Your task to perform on an android device: toggle javascript in the chrome app Image 0: 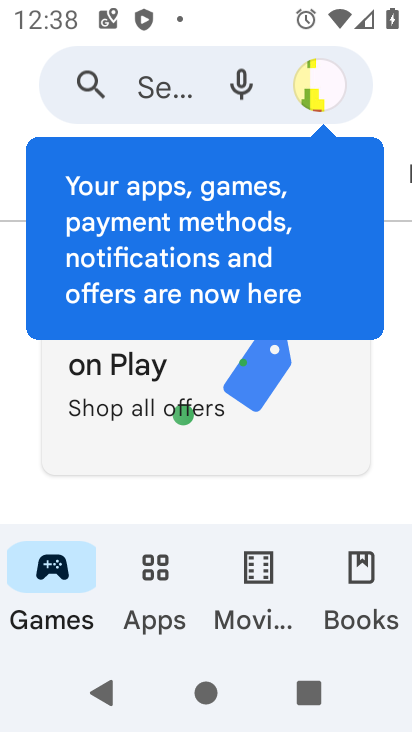
Step 0: press home button
Your task to perform on an android device: toggle javascript in the chrome app Image 1: 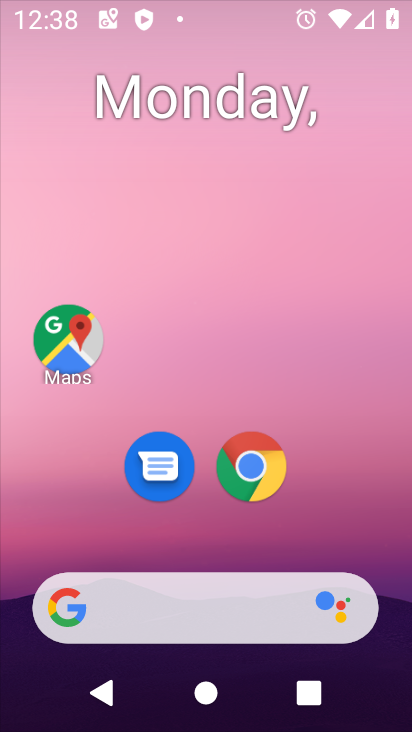
Step 1: drag from (392, 612) to (321, 127)
Your task to perform on an android device: toggle javascript in the chrome app Image 2: 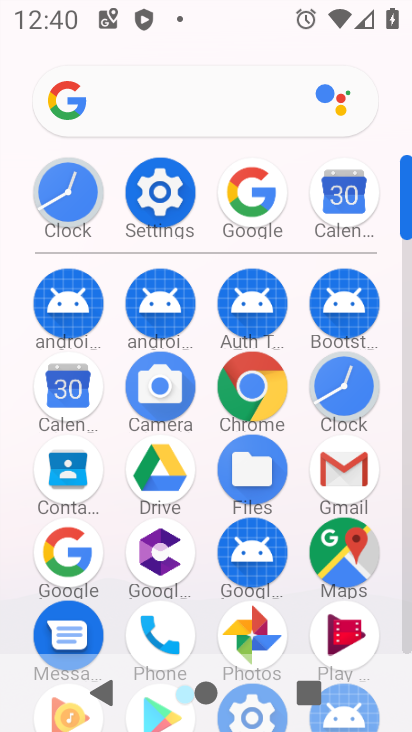
Step 2: click (243, 397)
Your task to perform on an android device: toggle javascript in the chrome app Image 3: 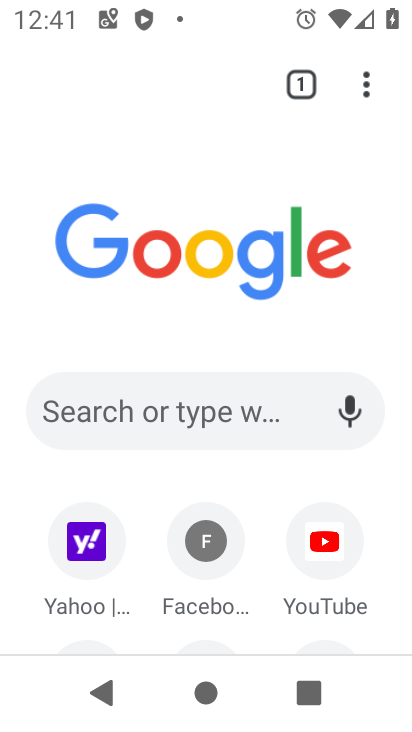
Step 3: click (367, 76)
Your task to perform on an android device: toggle javascript in the chrome app Image 4: 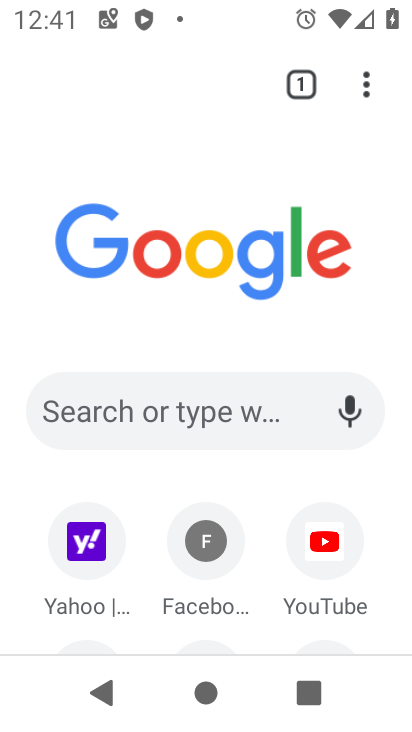
Step 4: click (375, 79)
Your task to perform on an android device: toggle javascript in the chrome app Image 5: 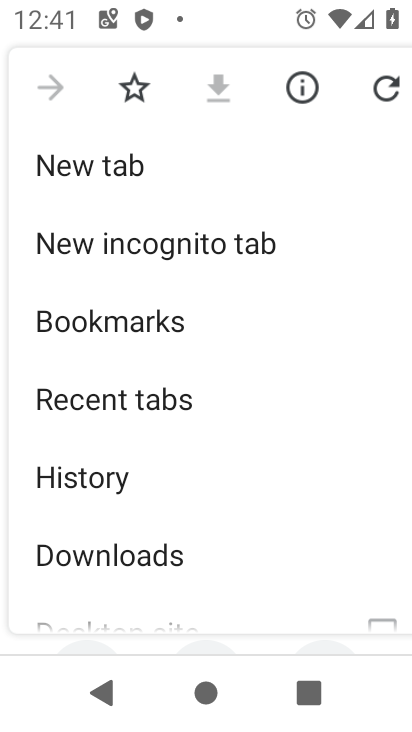
Step 5: drag from (200, 559) to (224, 119)
Your task to perform on an android device: toggle javascript in the chrome app Image 6: 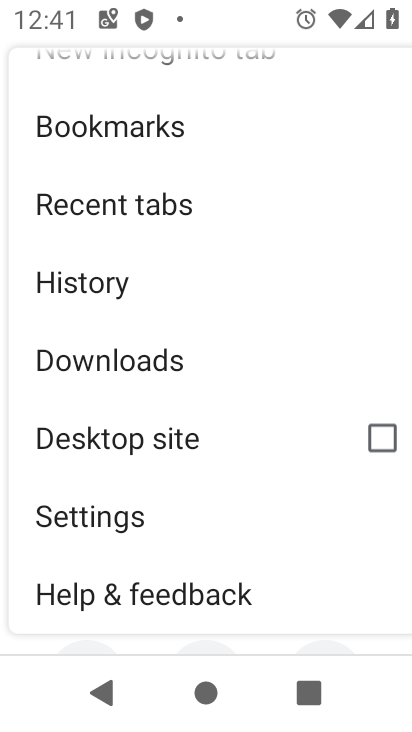
Step 6: click (128, 524)
Your task to perform on an android device: toggle javascript in the chrome app Image 7: 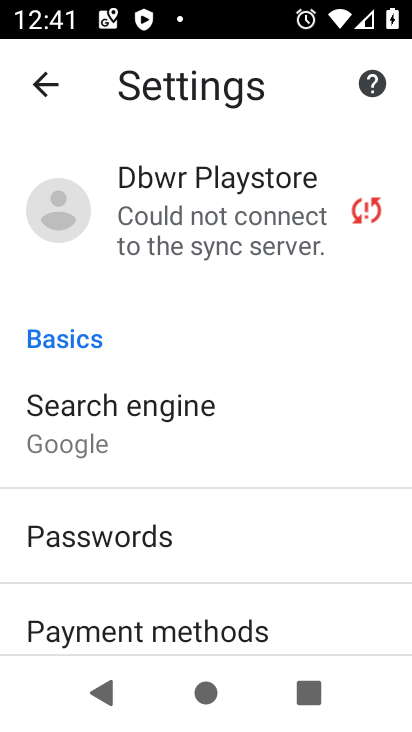
Step 7: drag from (126, 580) to (81, 100)
Your task to perform on an android device: toggle javascript in the chrome app Image 8: 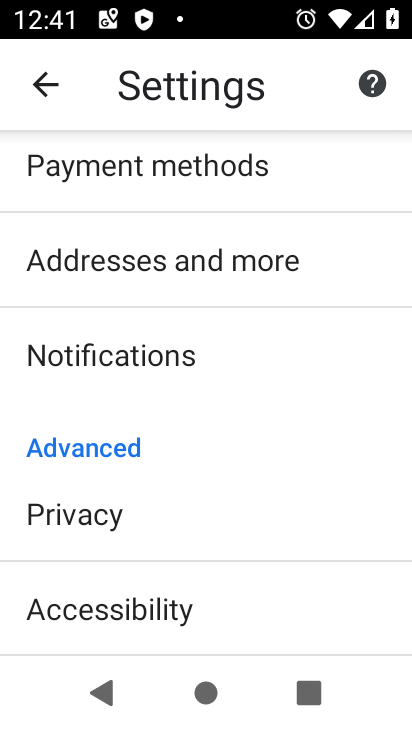
Step 8: drag from (162, 585) to (191, 205)
Your task to perform on an android device: toggle javascript in the chrome app Image 9: 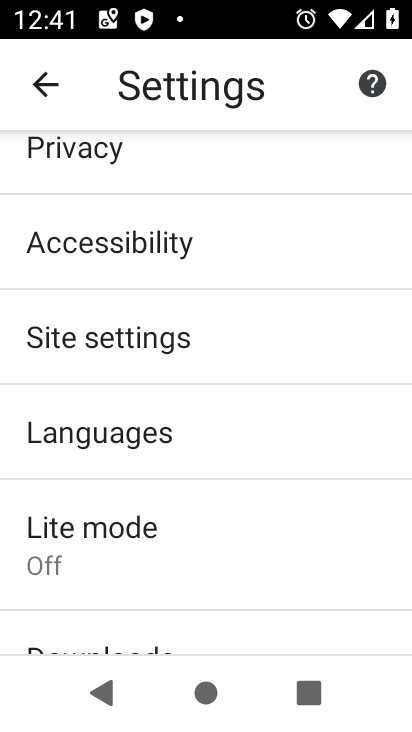
Step 9: click (197, 340)
Your task to perform on an android device: toggle javascript in the chrome app Image 10: 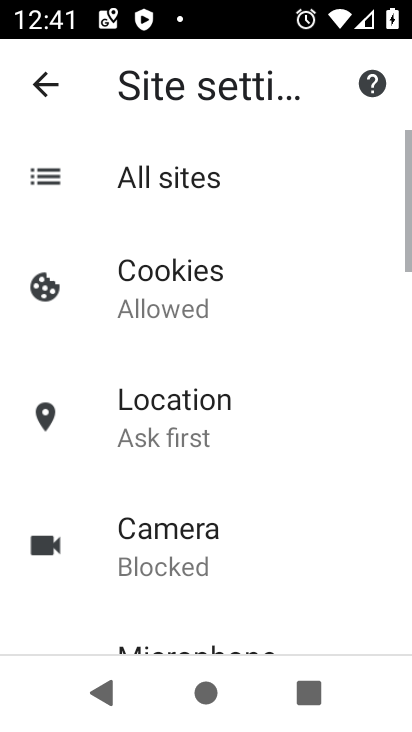
Step 10: drag from (211, 625) to (284, 186)
Your task to perform on an android device: toggle javascript in the chrome app Image 11: 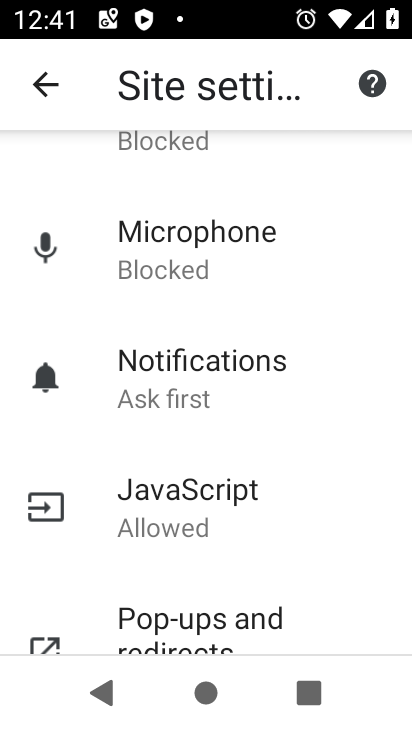
Step 11: click (230, 543)
Your task to perform on an android device: toggle javascript in the chrome app Image 12: 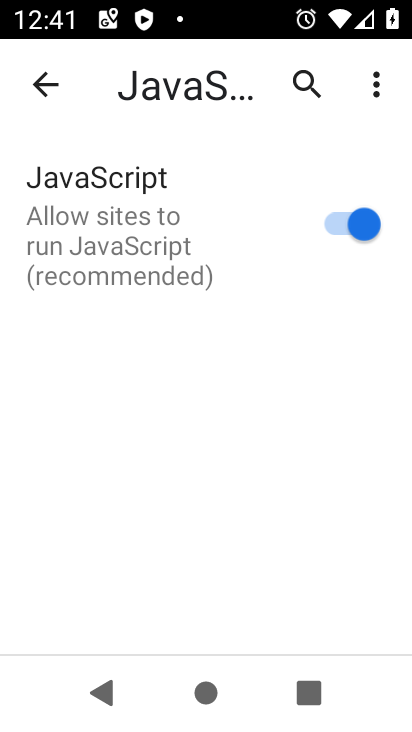
Step 12: click (346, 219)
Your task to perform on an android device: toggle javascript in the chrome app Image 13: 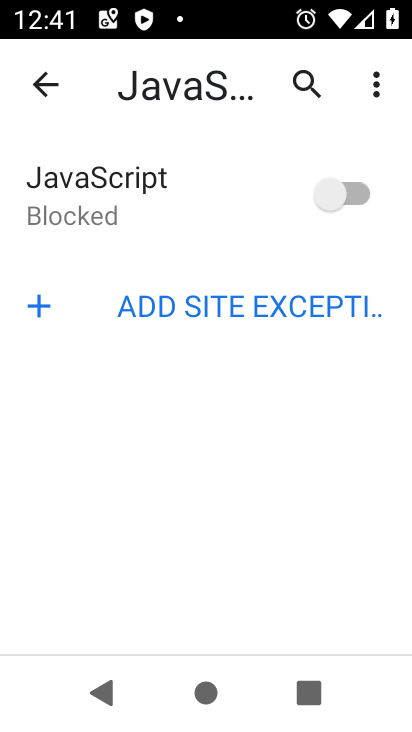
Step 13: task complete